Your task to perform on an android device: turn off smart reply in the gmail app Image 0: 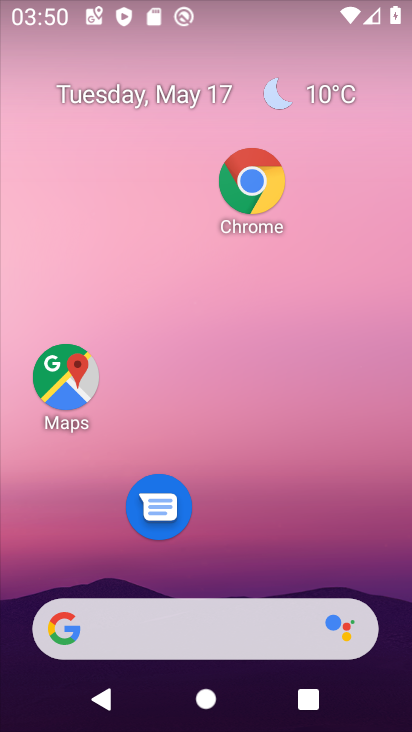
Step 0: drag from (263, 556) to (272, 207)
Your task to perform on an android device: turn off smart reply in the gmail app Image 1: 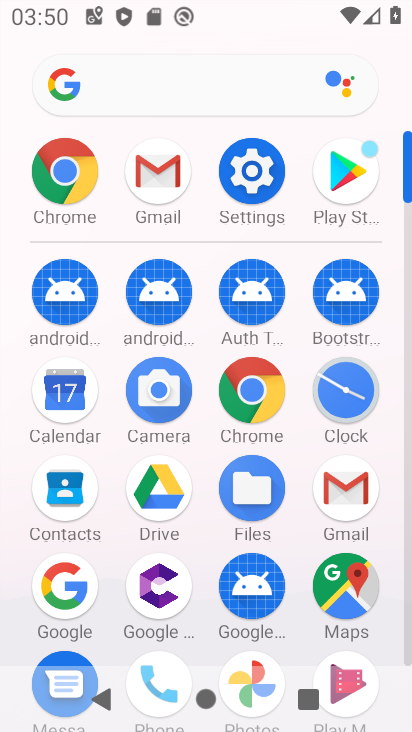
Step 1: click (120, 176)
Your task to perform on an android device: turn off smart reply in the gmail app Image 2: 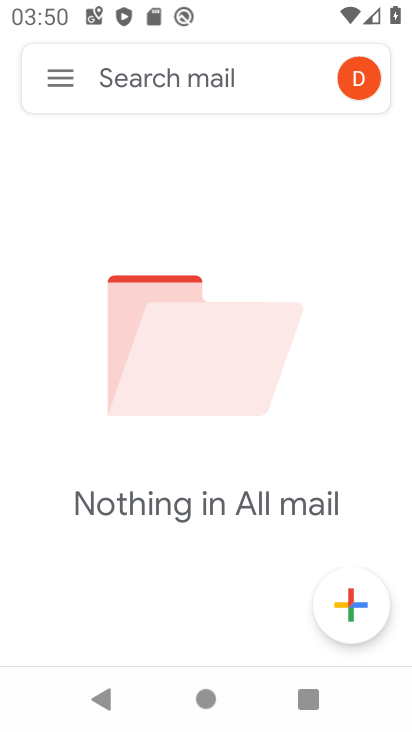
Step 2: click (55, 70)
Your task to perform on an android device: turn off smart reply in the gmail app Image 3: 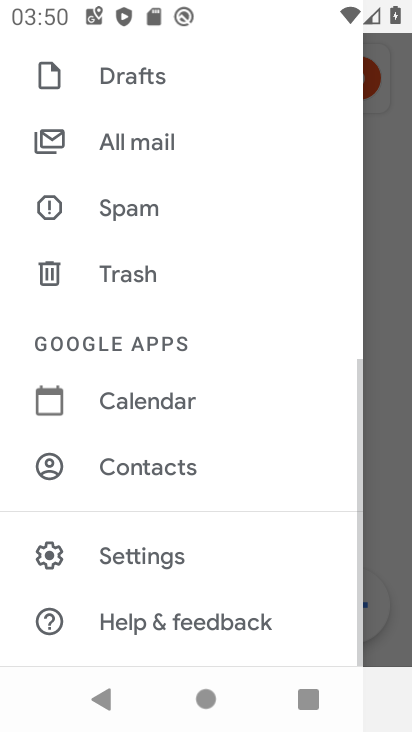
Step 3: click (161, 522)
Your task to perform on an android device: turn off smart reply in the gmail app Image 4: 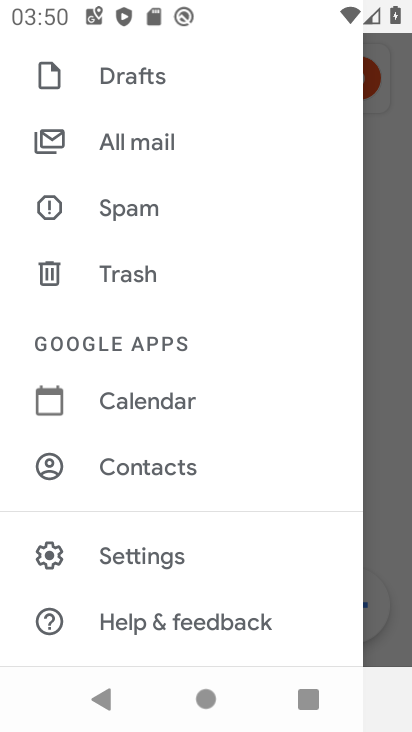
Step 4: click (172, 553)
Your task to perform on an android device: turn off smart reply in the gmail app Image 5: 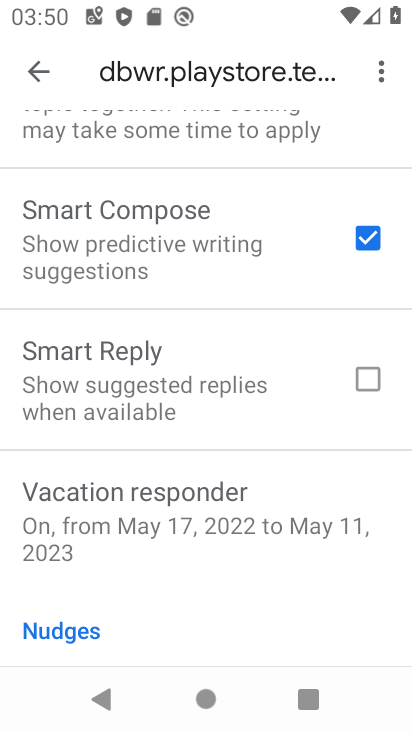
Step 5: task complete